Your task to perform on an android device: turn pop-ups on in chrome Image 0: 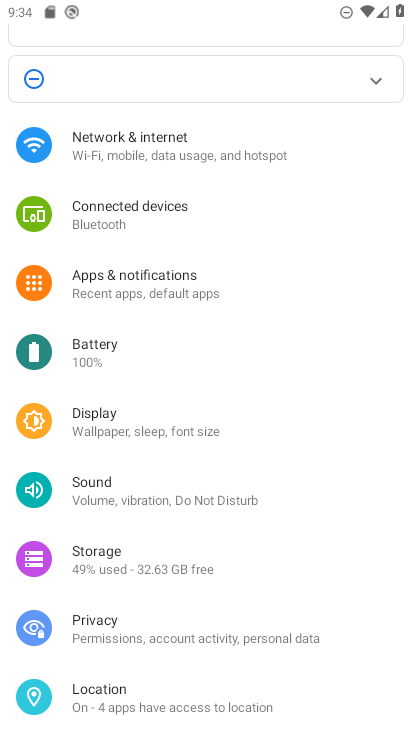
Step 0: press home button
Your task to perform on an android device: turn pop-ups on in chrome Image 1: 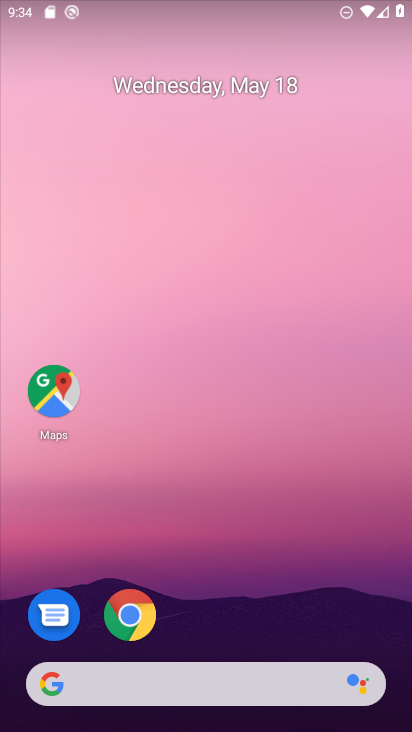
Step 1: click (130, 614)
Your task to perform on an android device: turn pop-ups on in chrome Image 2: 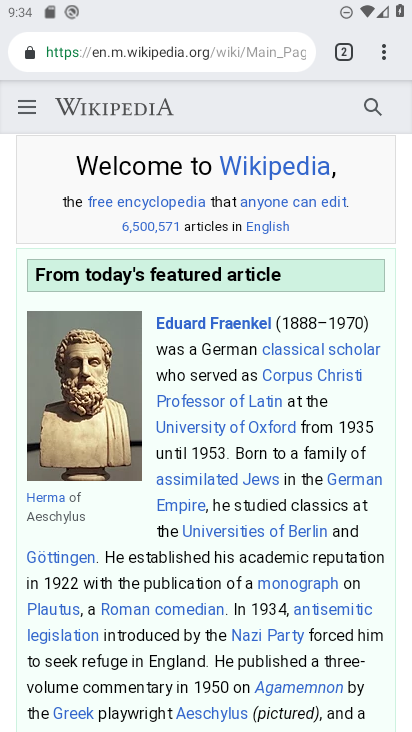
Step 2: click (374, 51)
Your task to perform on an android device: turn pop-ups on in chrome Image 3: 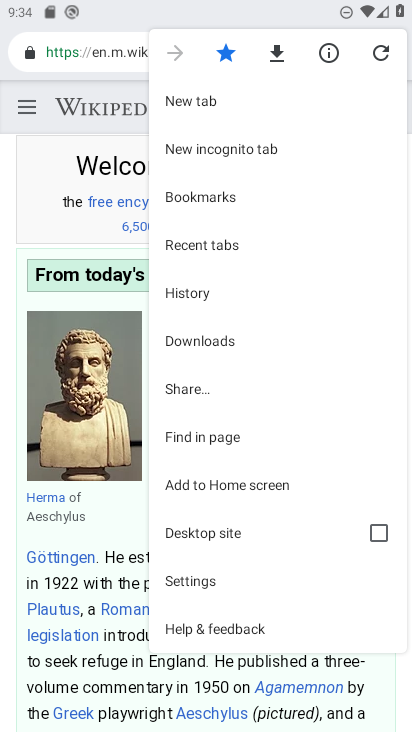
Step 3: click (182, 581)
Your task to perform on an android device: turn pop-ups on in chrome Image 4: 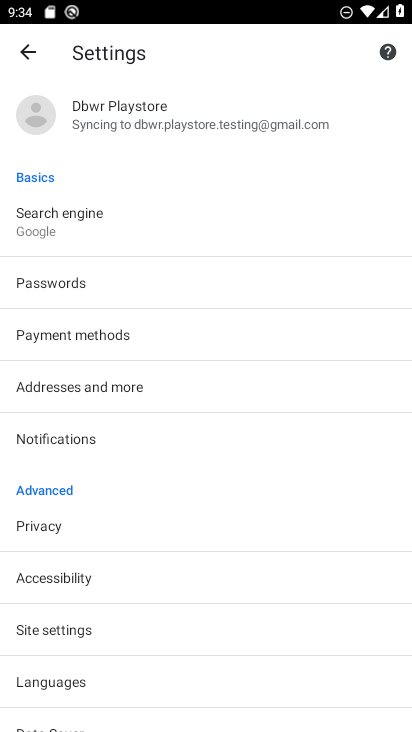
Step 4: click (76, 645)
Your task to perform on an android device: turn pop-ups on in chrome Image 5: 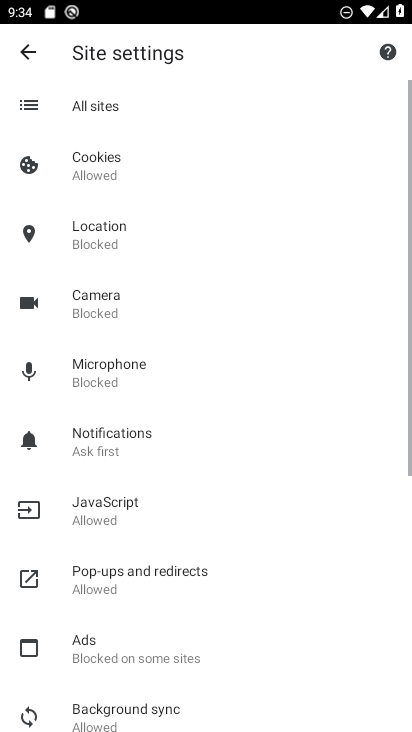
Step 5: click (116, 587)
Your task to perform on an android device: turn pop-ups on in chrome Image 6: 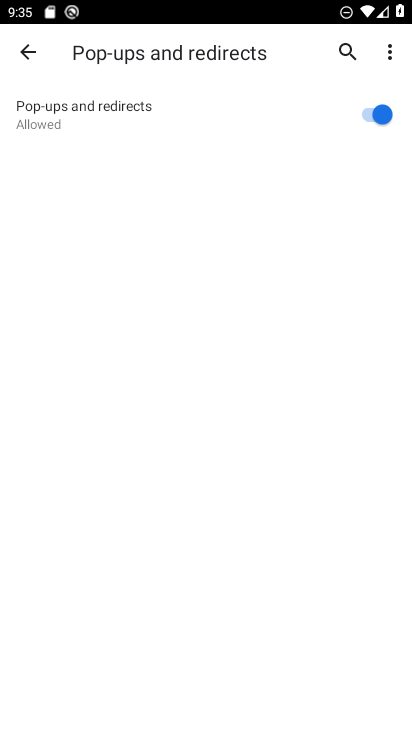
Step 6: task complete